Your task to perform on an android device: Add usb-a to the cart on amazon, then select checkout. Image 0: 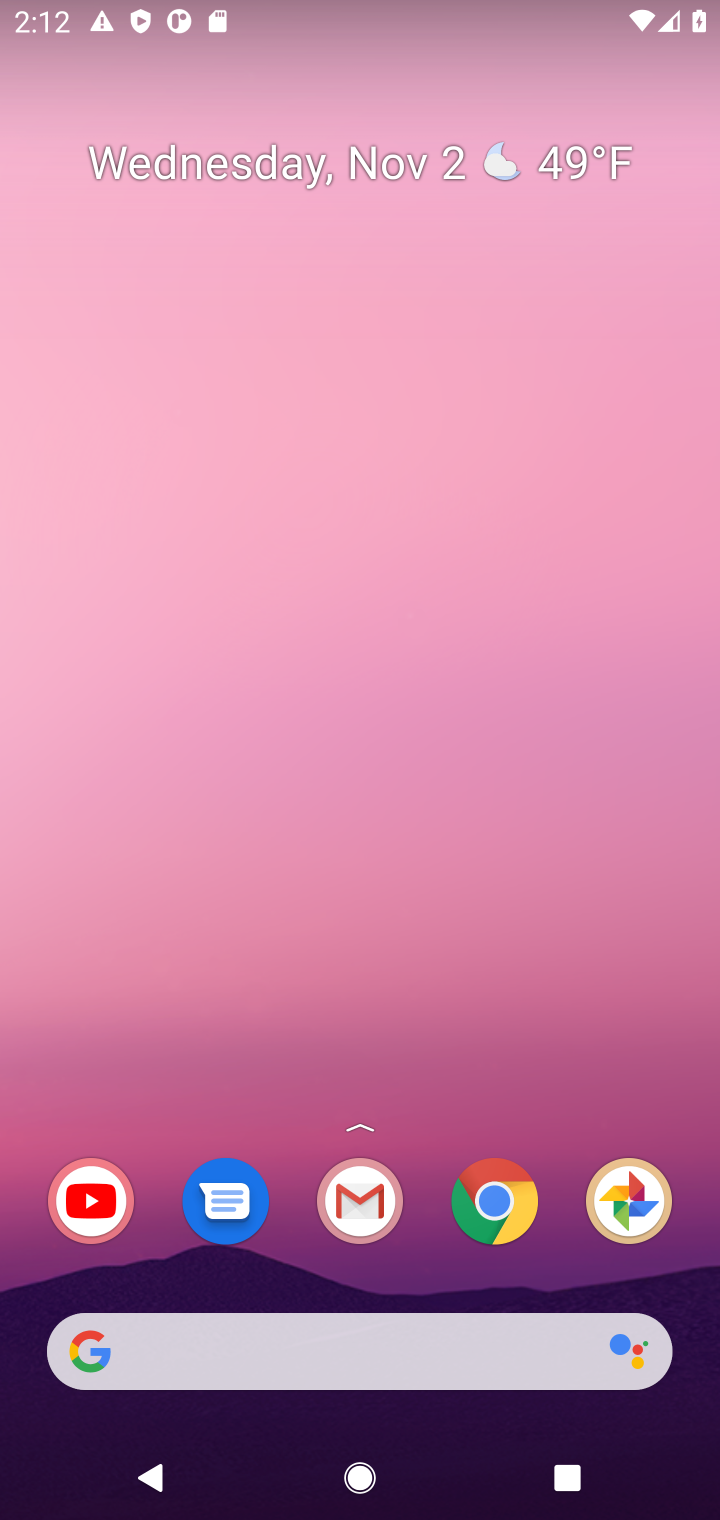
Step 0: press home button
Your task to perform on an android device: Add usb-a to the cart on amazon, then select checkout. Image 1: 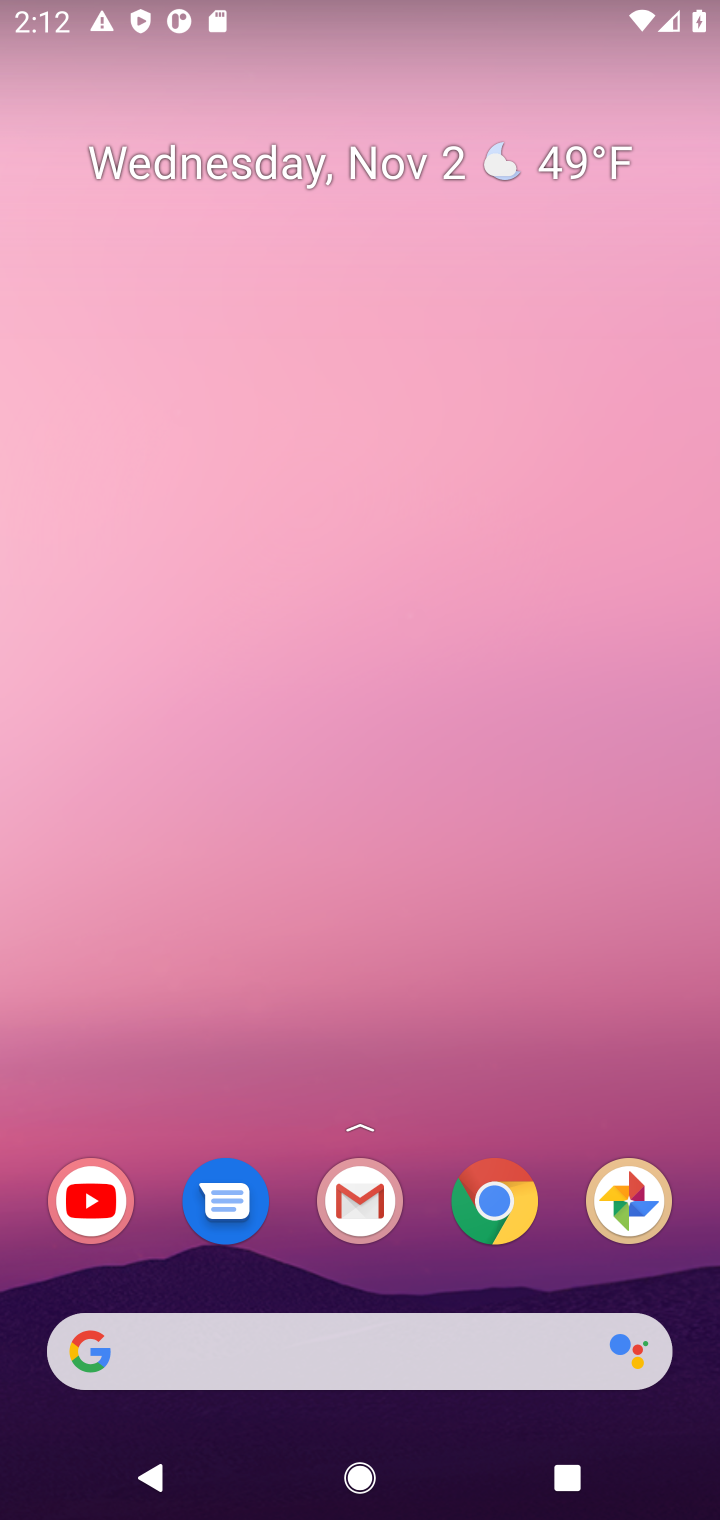
Step 1: click (503, 1195)
Your task to perform on an android device: Add usb-a to the cart on amazon, then select checkout. Image 2: 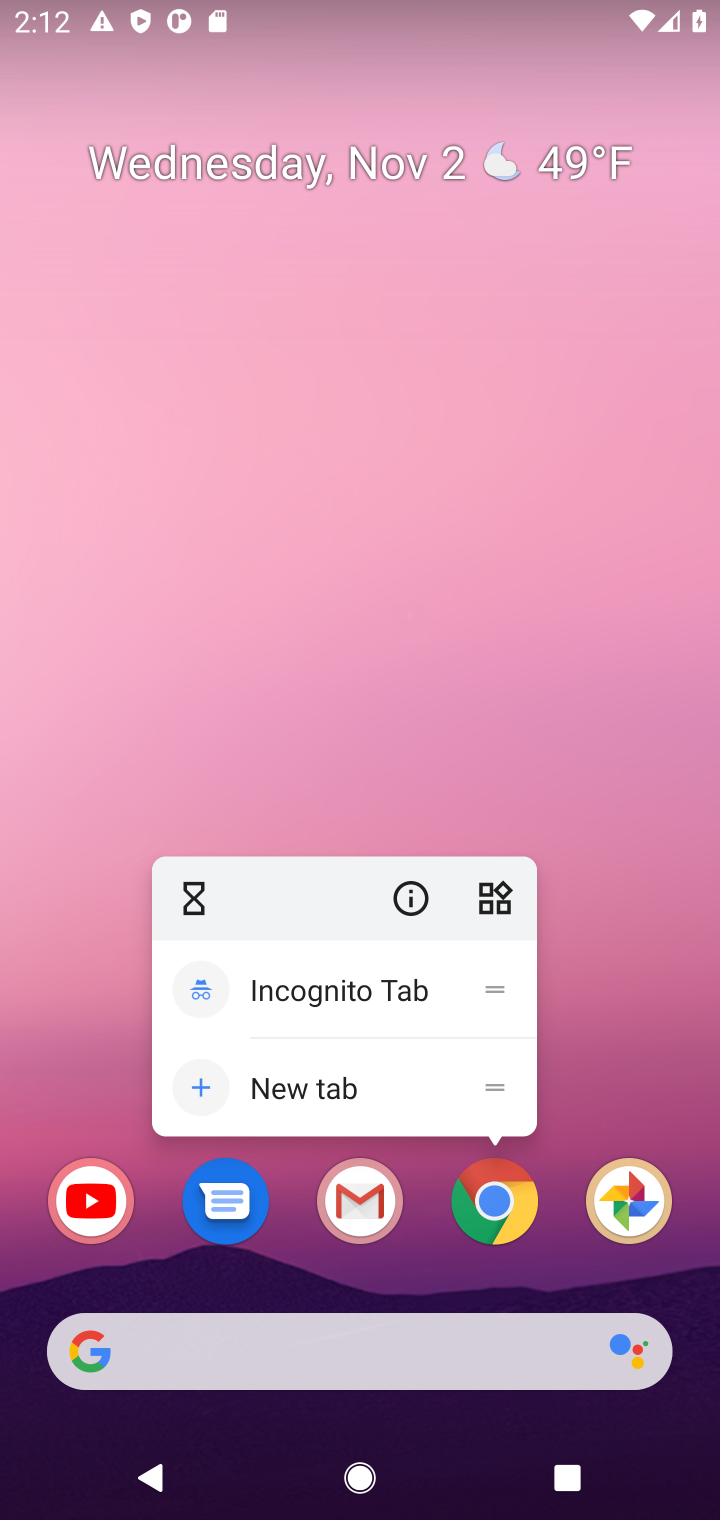
Step 2: click (492, 1207)
Your task to perform on an android device: Add usb-a to the cart on amazon, then select checkout. Image 3: 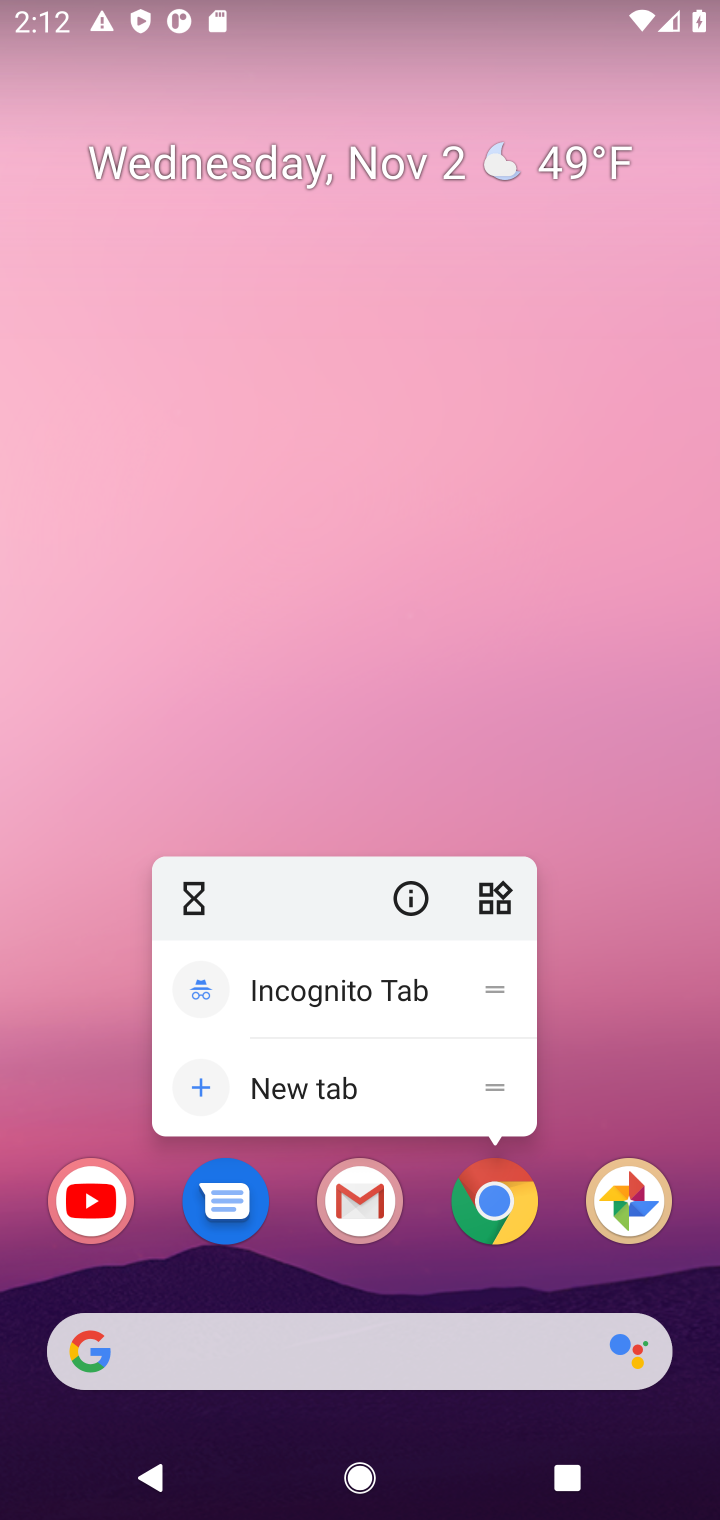
Step 3: click (512, 1216)
Your task to perform on an android device: Add usb-a to the cart on amazon, then select checkout. Image 4: 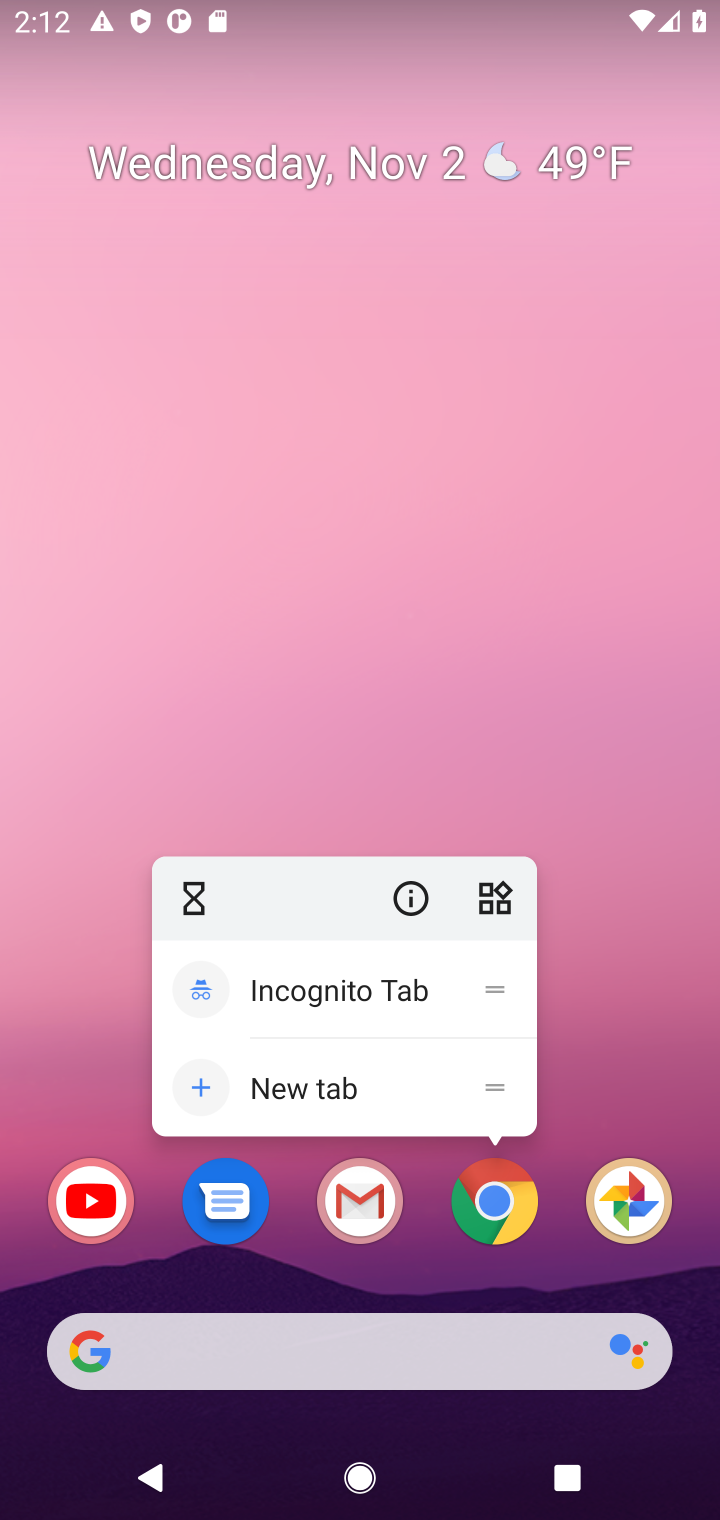
Step 4: click (484, 1205)
Your task to perform on an android device: Add usb-a to the cart on amazon, then select checkout. Image 5: 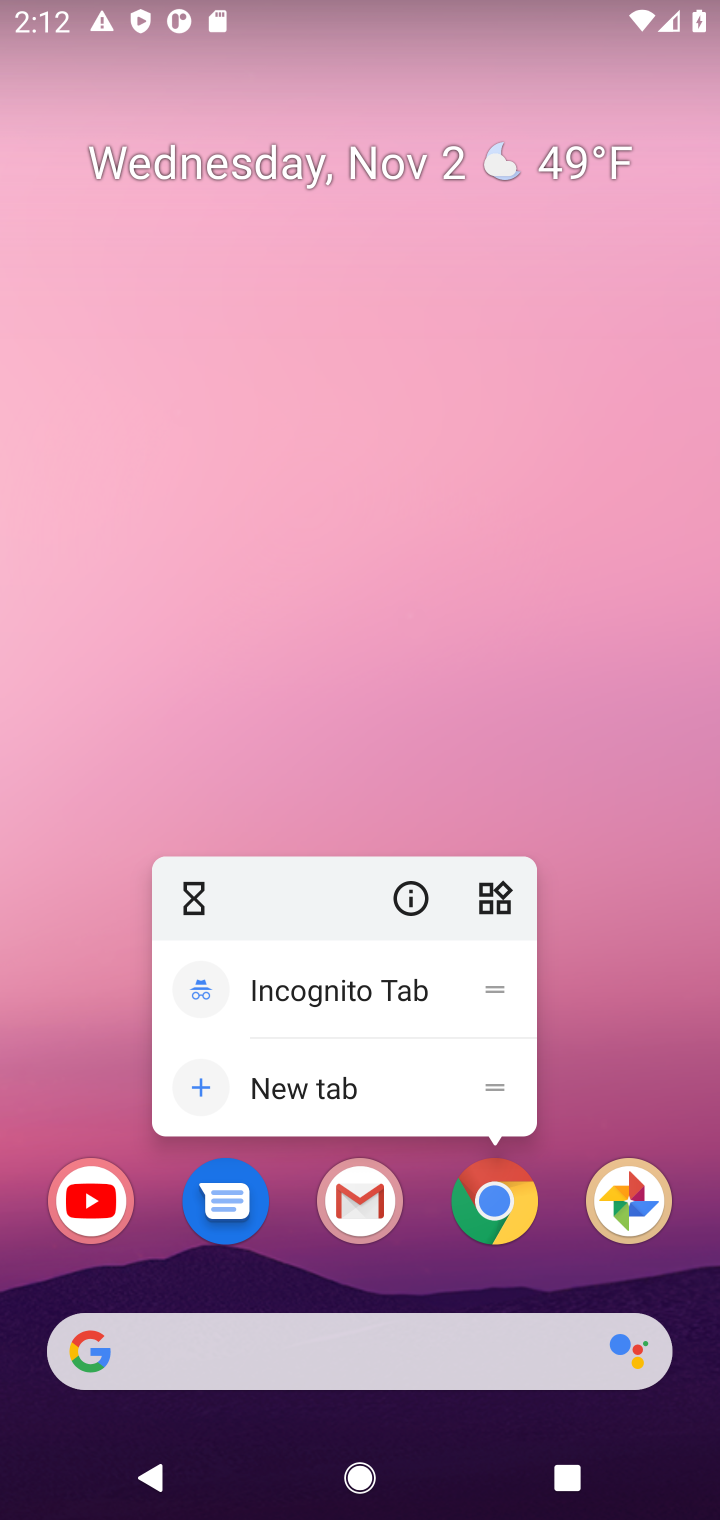
Step 5: click (494, 1190)
Your task to perform on an android device: Add usb-a to the cart on amazon, then select checkout. Image 6: 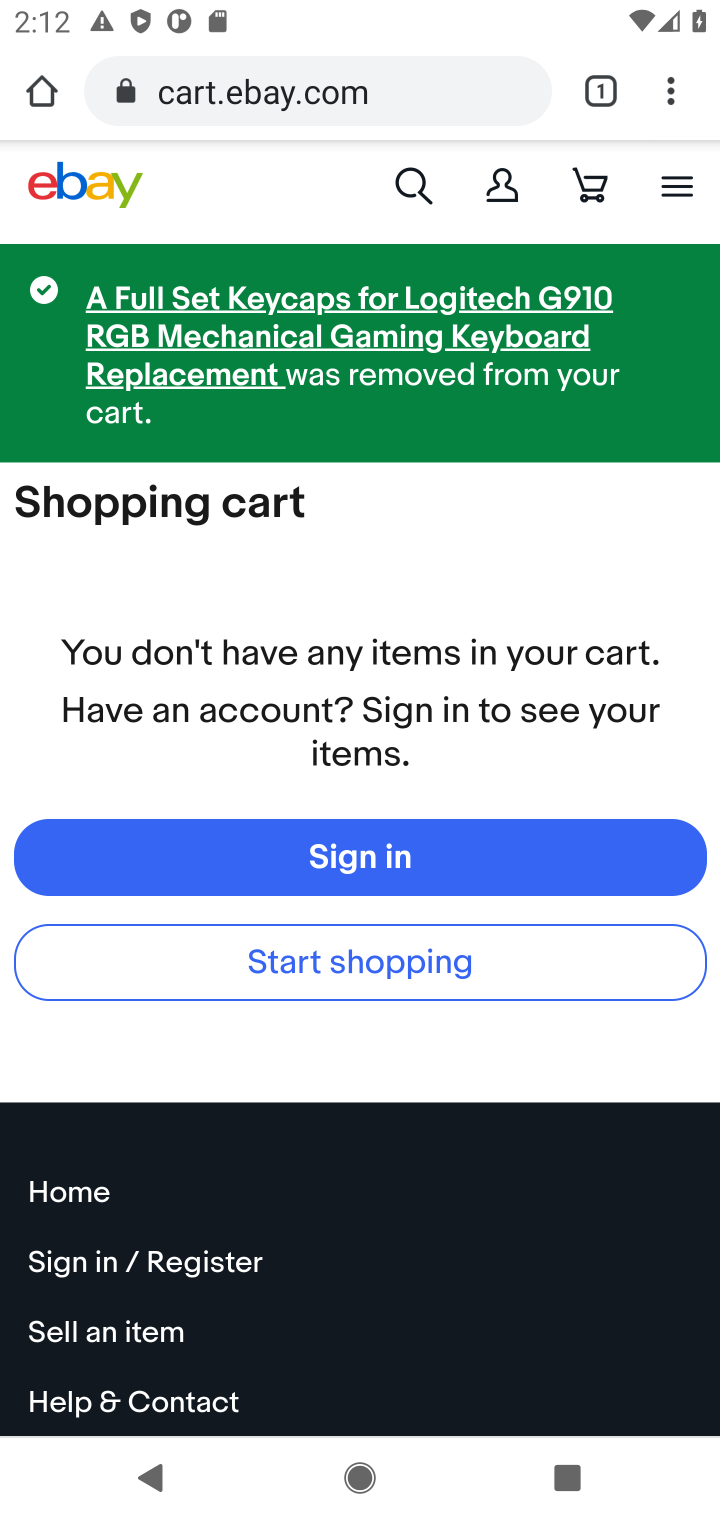
Step 6: click (361, 99)
Your task to perform on an android device: Add usb-a to the cart on amazon, then select checkout. Image 7: 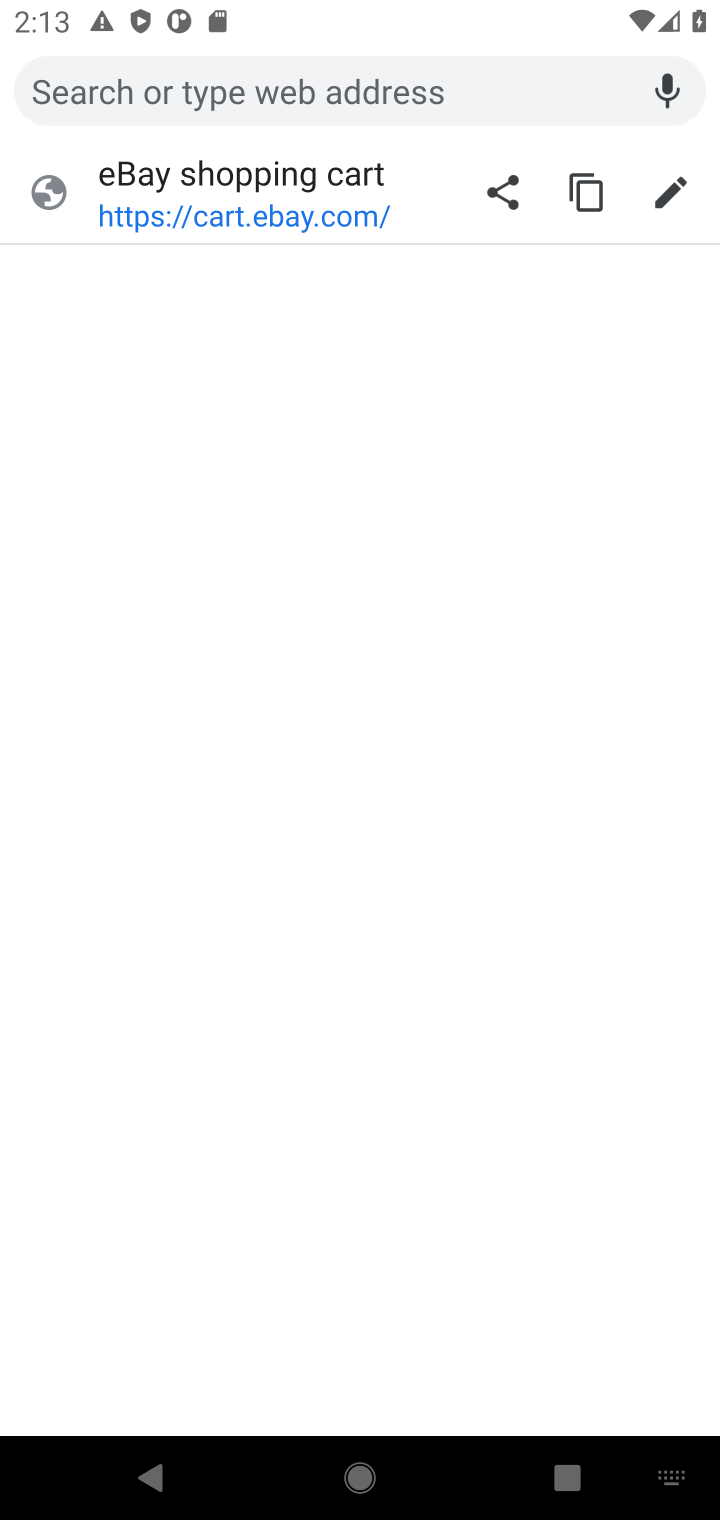
Step 7: type "amazon"
Your task to perform on an android device: Add usb-a to the cart on amazon, then select checkout. Image 8: 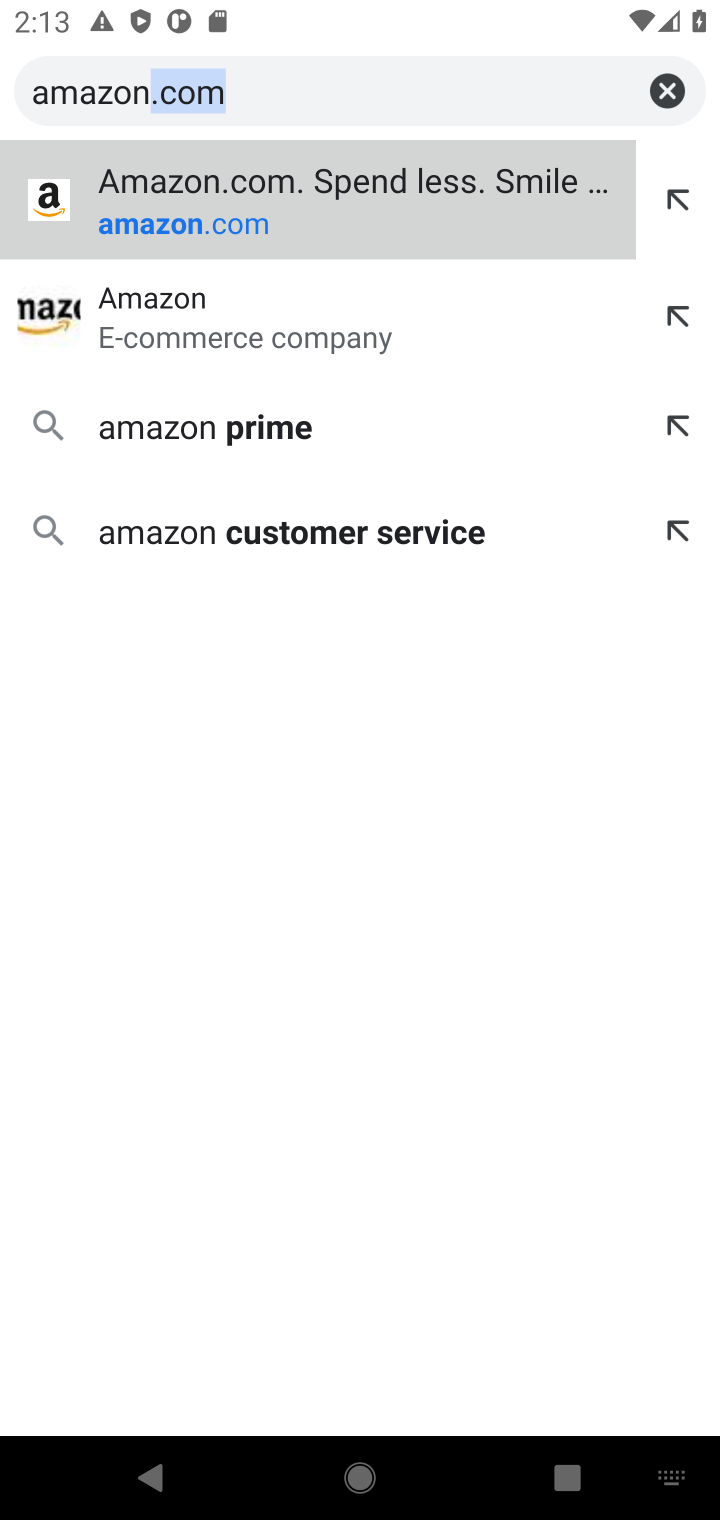
Step 8: press enter
Your task to perform on an android device: Add usb-a to the cart on amazon, then select checkout. Image 9: 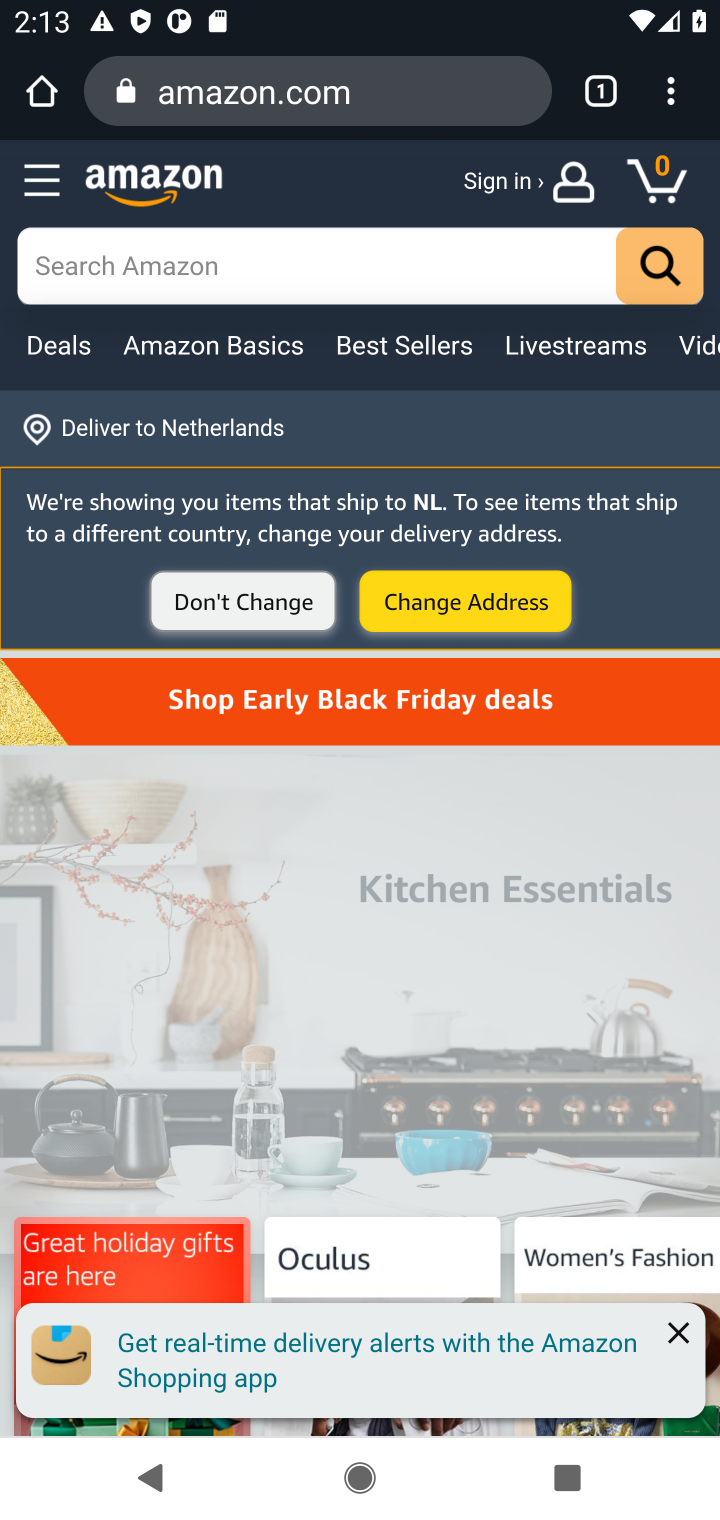
Step 9: click (353, 269)
Your task to perform on an android device: Add usb-a to the cart on amazon, then select checkout. Image 10: 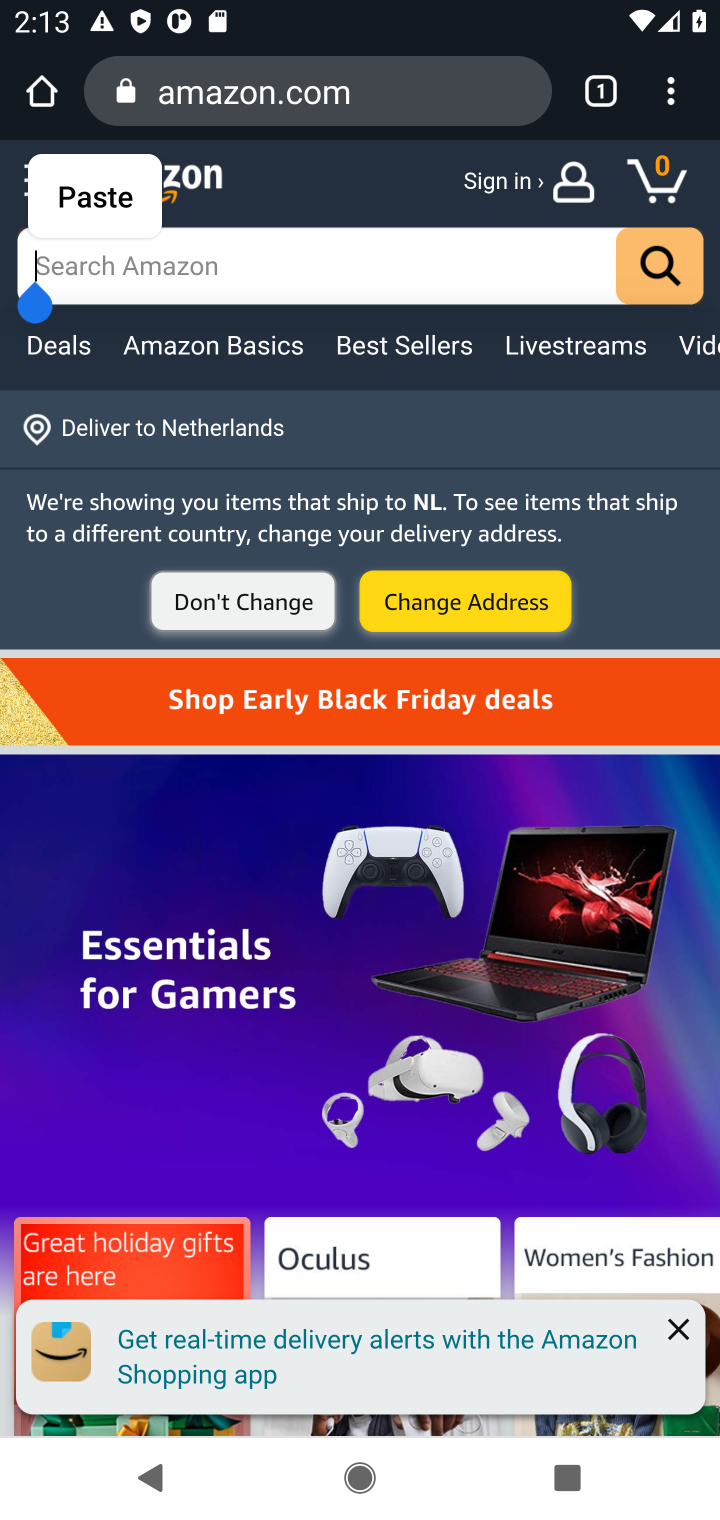
Step 10: click (357, 267)
Your task to perform on an android device: Add usb-a to the cart on amazon, then select checkout. Image 11: 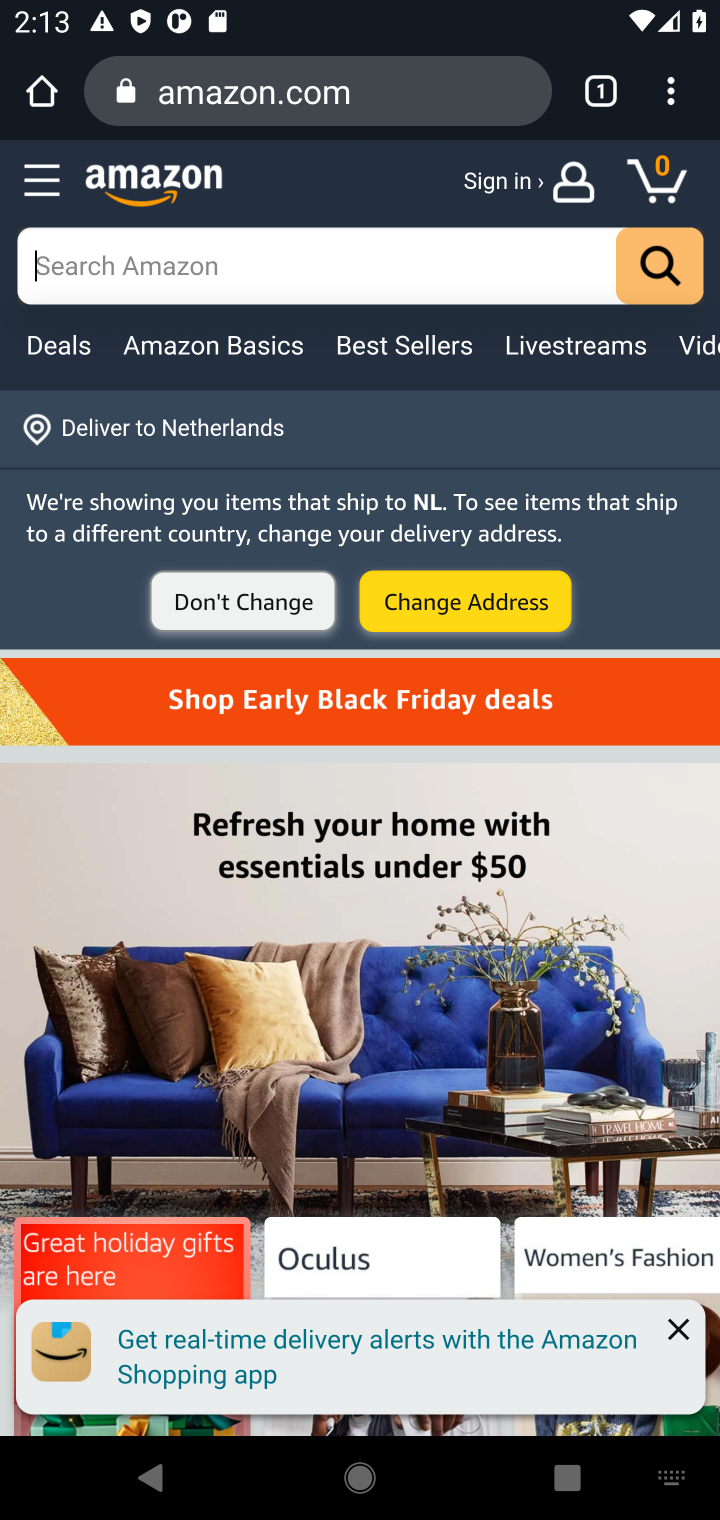
Step 11: type "usb-a"
Your task to perform on an android device: Add usb-a to the cart on amazon, then select checkout. Image 12: 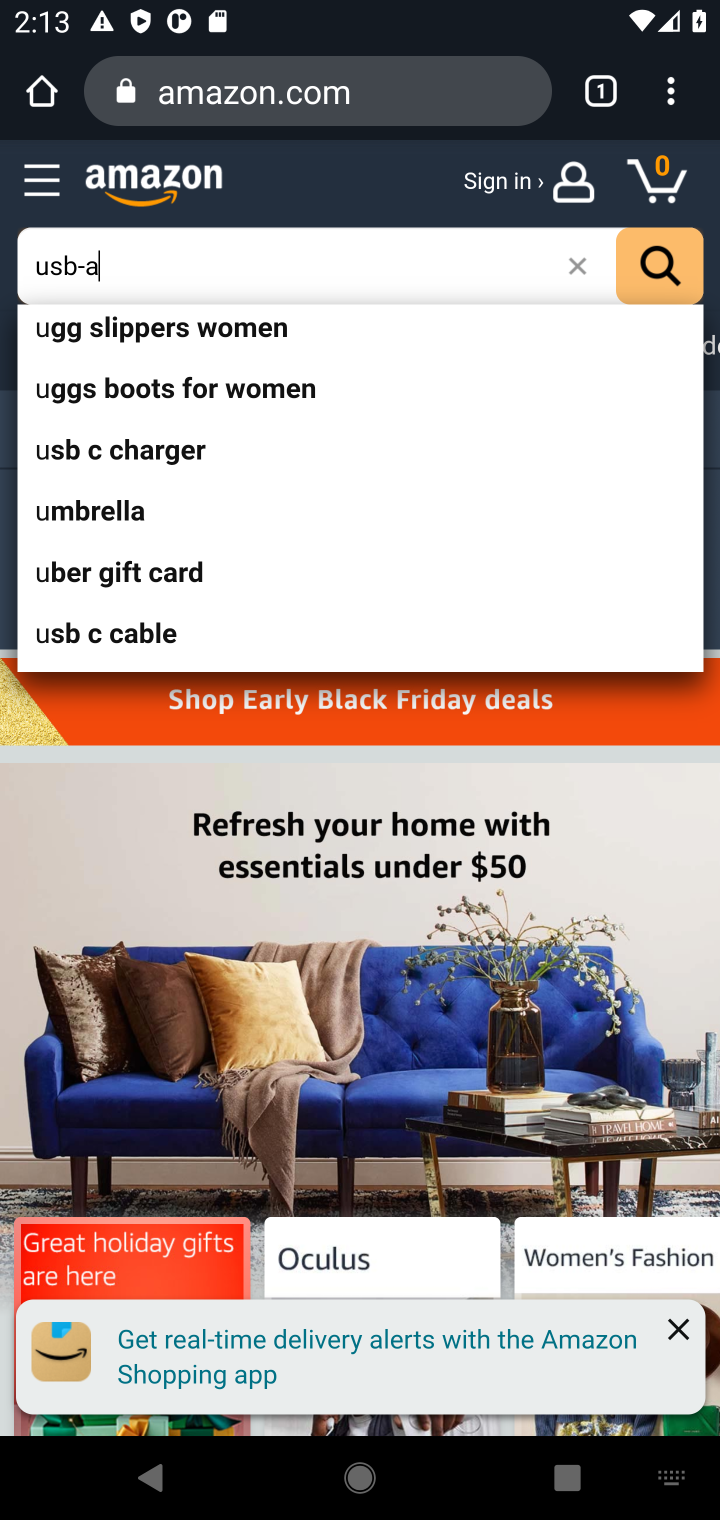
Step 12: press enter
Your task to perform on an android device: Add usb-a to the cart on amazon, then select checkout. Image 13: 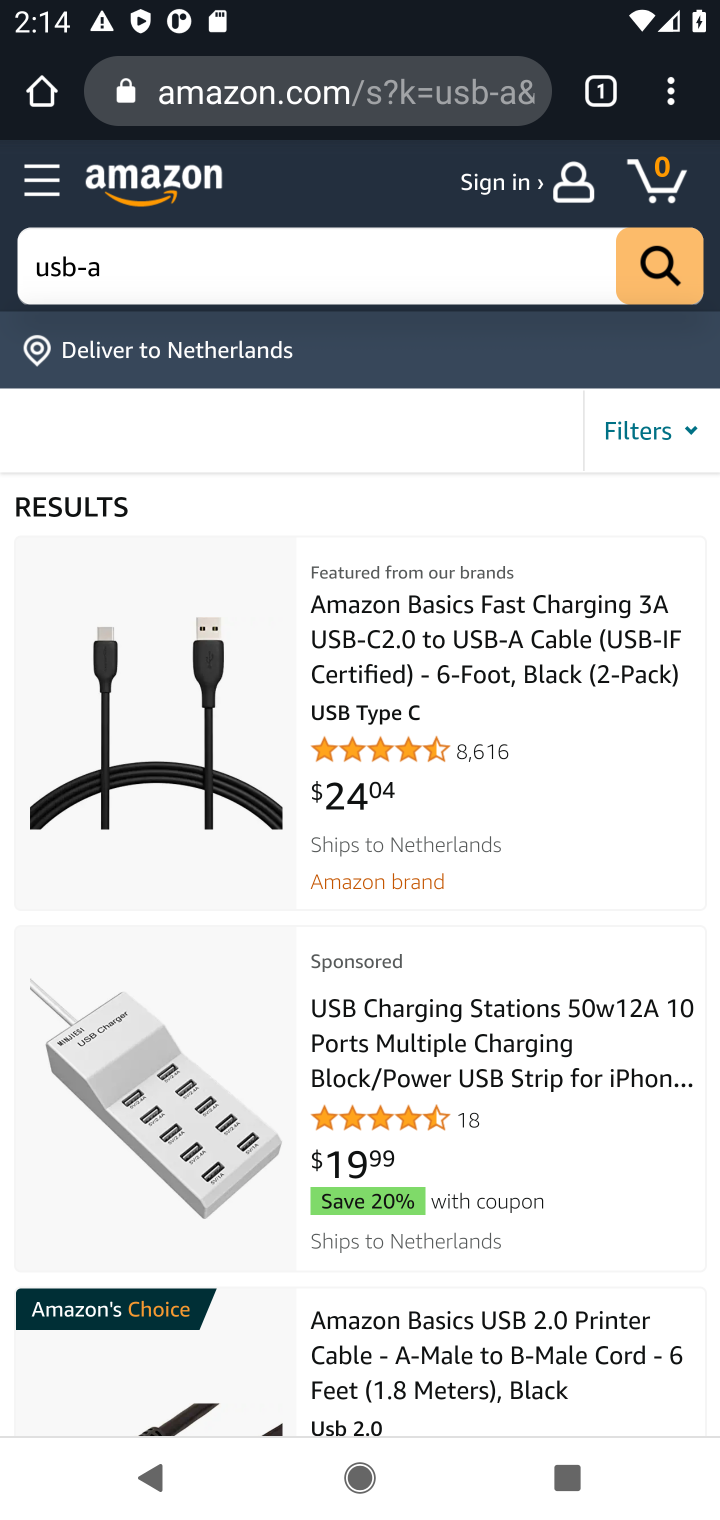
Step 13: task complete